Your task to perform on an android device: turn off airplane mode Image 0: 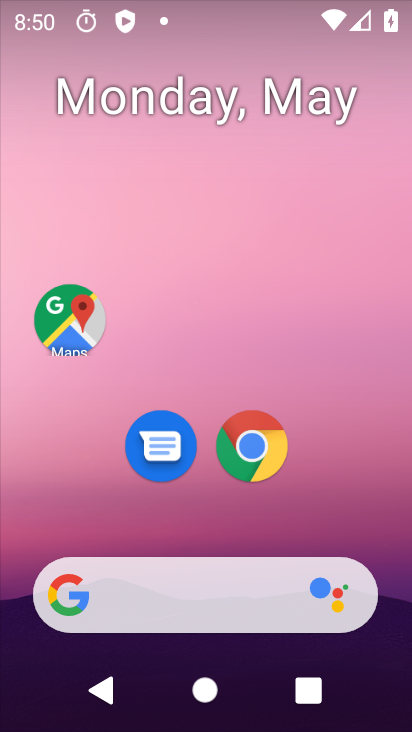
Step 0: drag from (346, 527) to (207, 0)
Your task to perform on an android device: turn off airplane mode Image 1: 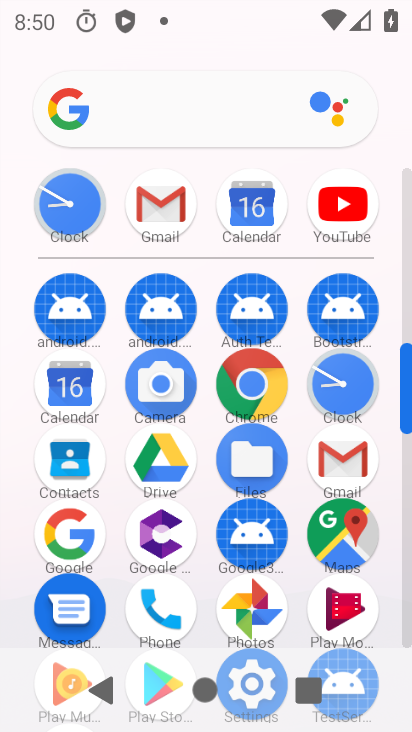
Step 1: drag from (407, 519) to (406, 463)
Your task to perform on an android device: turn off airplane mode Image 2: 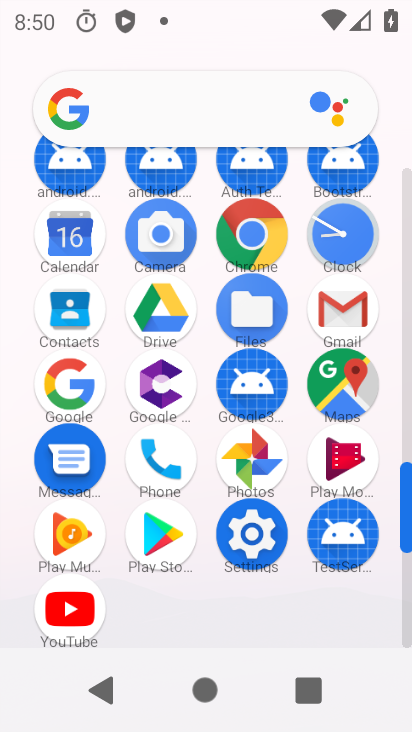
Step 2: click (253, 535)
Your task to perform on an android device: turn off airplane mode Image 3: 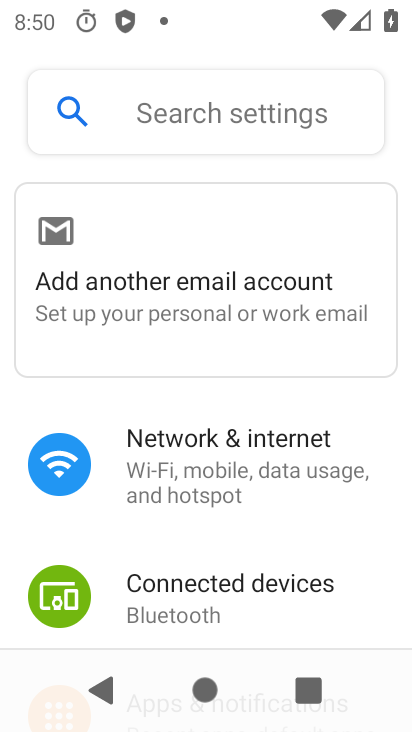
Step 3: click (192, 448)
Your task to perform on an android device: turn off airplane mode Image 4: 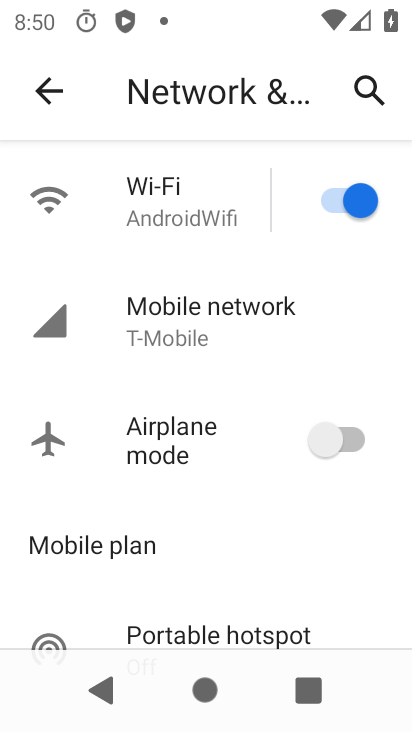
Step 4: task complete